Your task to perform on an android device: Go to battery settings Image 0: 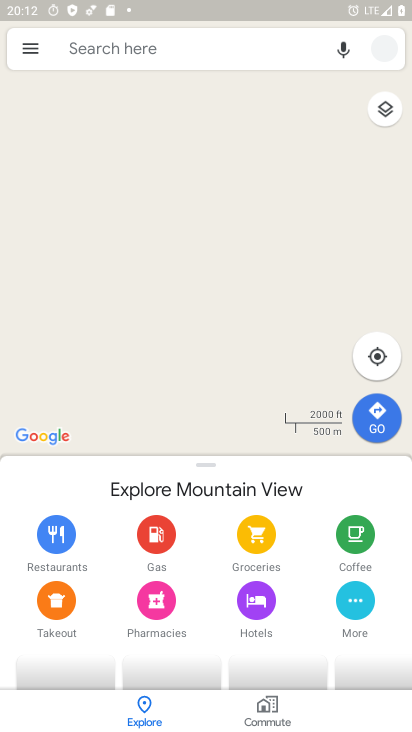
Step 0: click (177, 17)
Your task to perform on an android device: Go to battery settings Image 1: 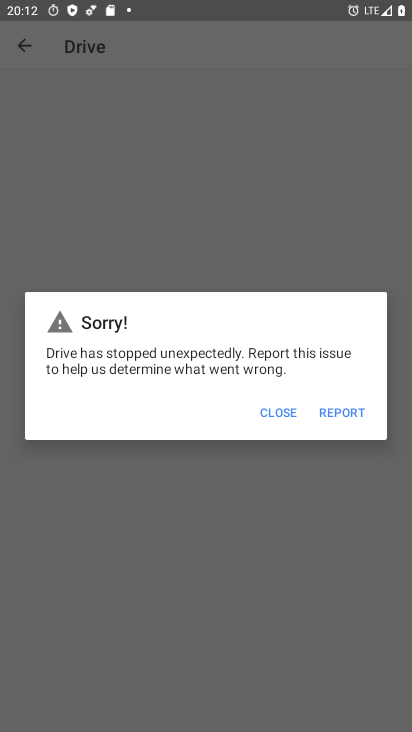
Step 1: press home button
Your task to perform on an android device: Go to battery settings Image 2: 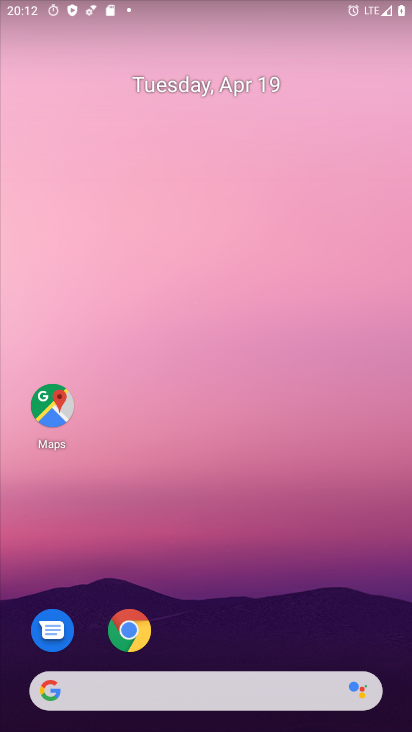
Step 2: drag from (190, 651) to (156, 56)
Your task to perform on an android device: Go to battery settings Image 3: 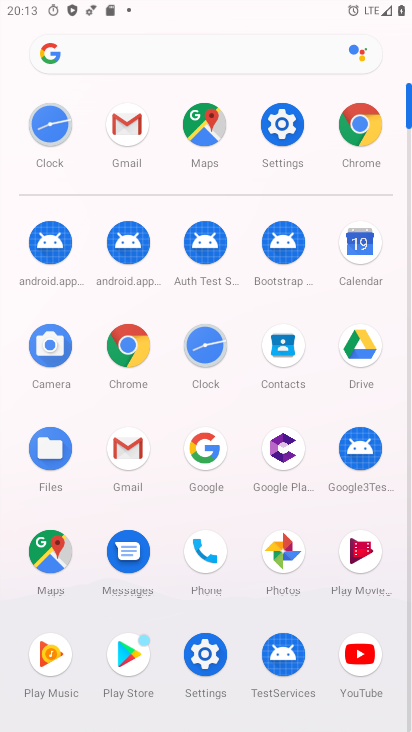
Step 3: click (286, 156)
Your task to perform on an android device: Go to battery settings Image 4: 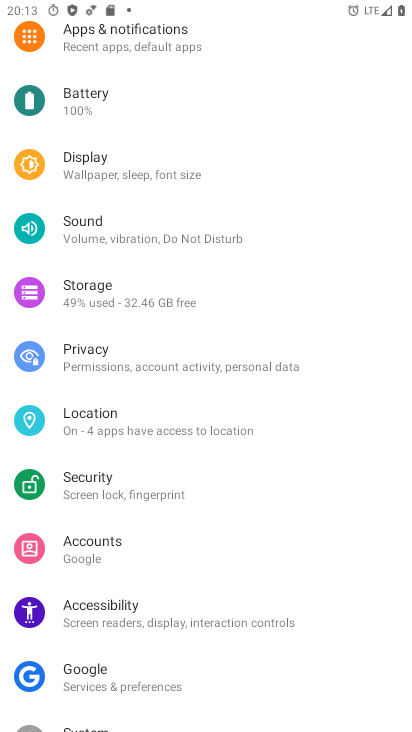
Step 4: click (88, 93)
Your task to perform on an android device: Go to battery settings Image 5: 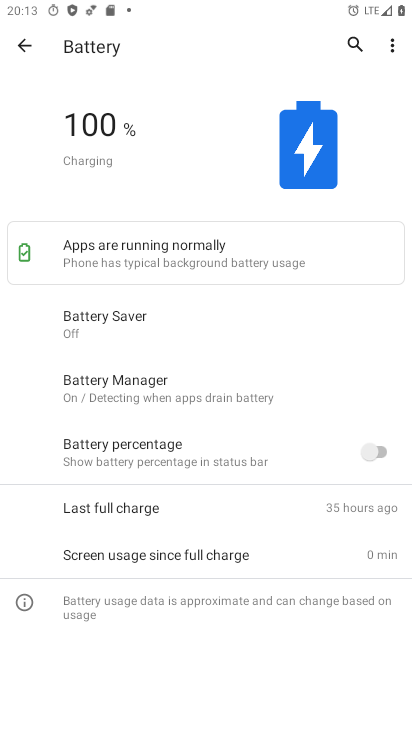
Step 5: task complete